Your task to perform on an android device: open app "Airtel Thanks" Image 0: 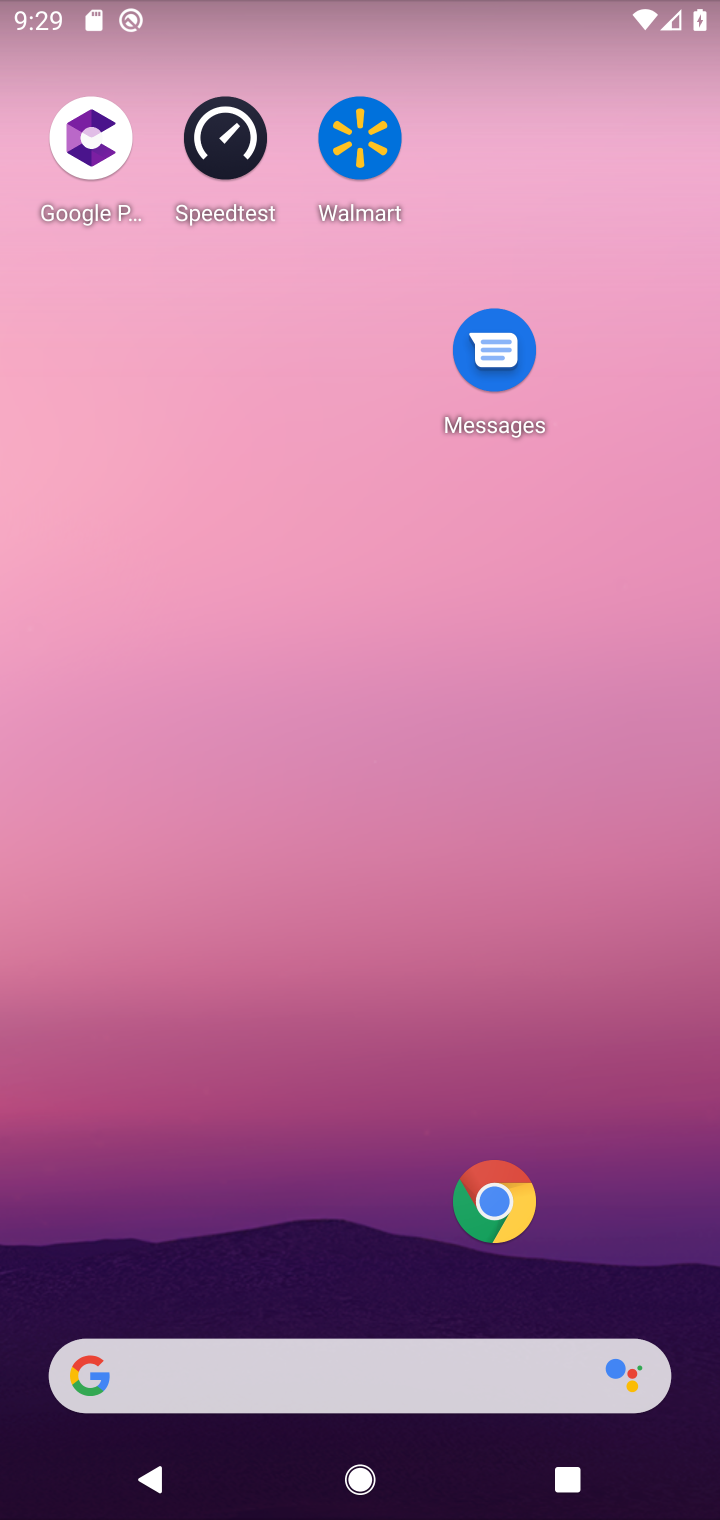
Step 0: drag from (403, 1233) to (440, 523)
Your task to perform on an android device: open app "Airtel Thanks" Image 1: 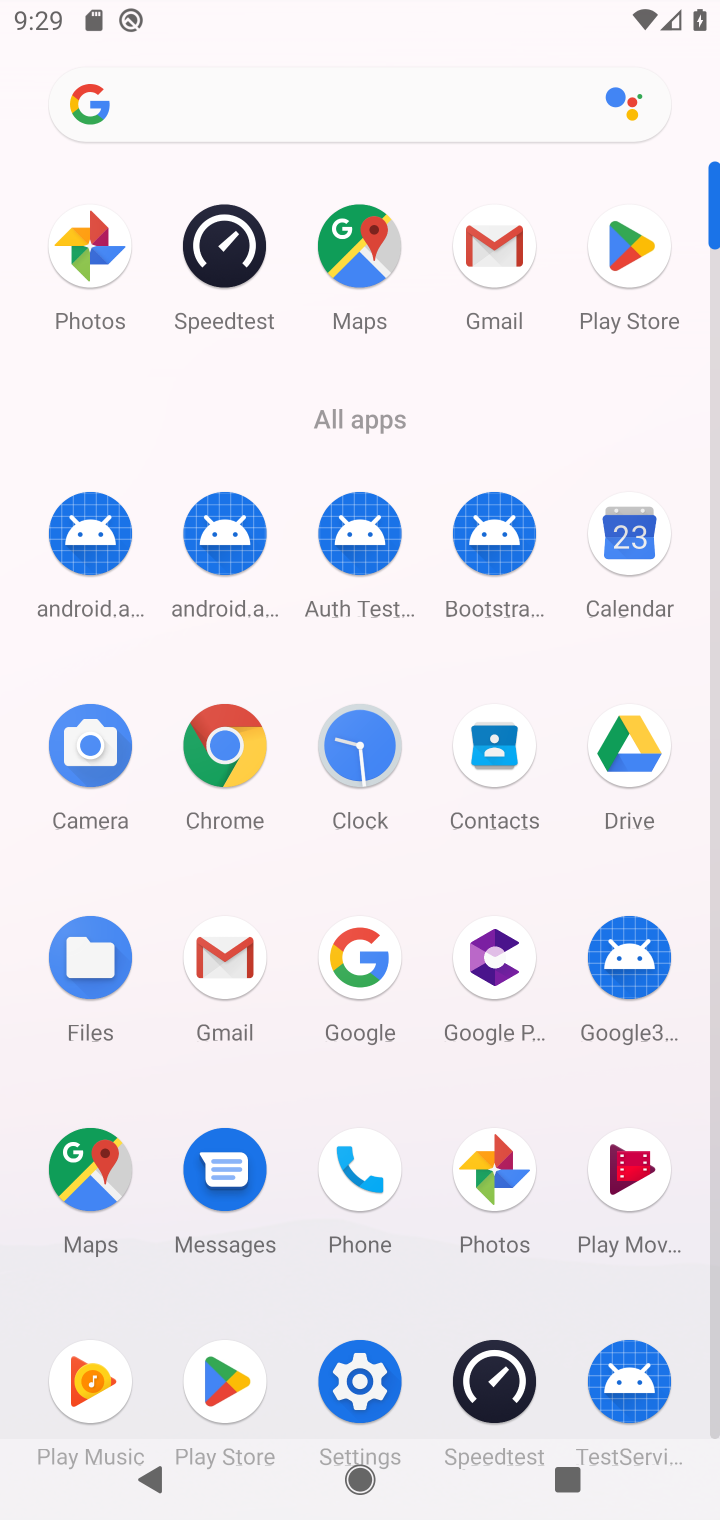
Step 1: click (639, 245)
Your task to perform on an android device: open app "Airtel Thanks" Image 2: 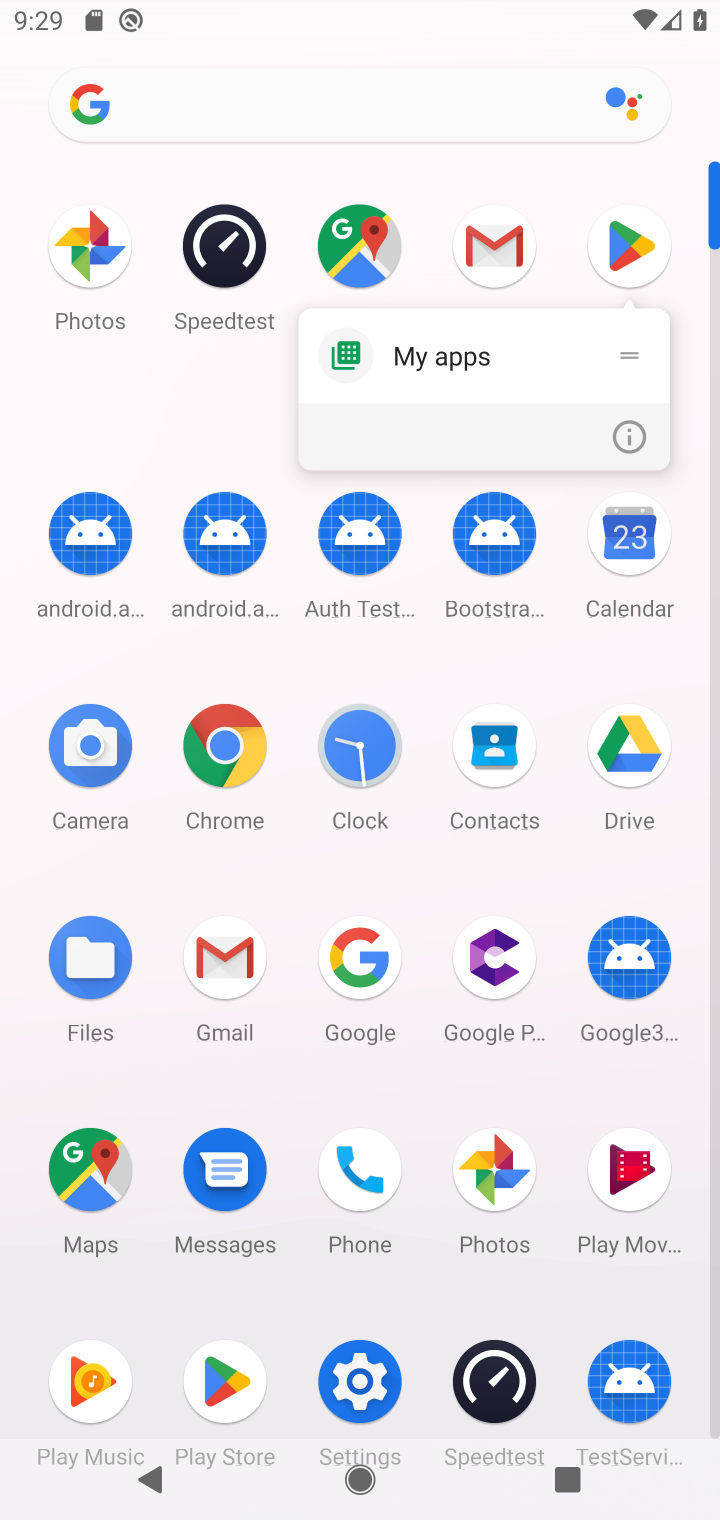
Step 2: click (633, 233)
Your task to perform on an android device: open app "Airtel Thanks" Image 3: 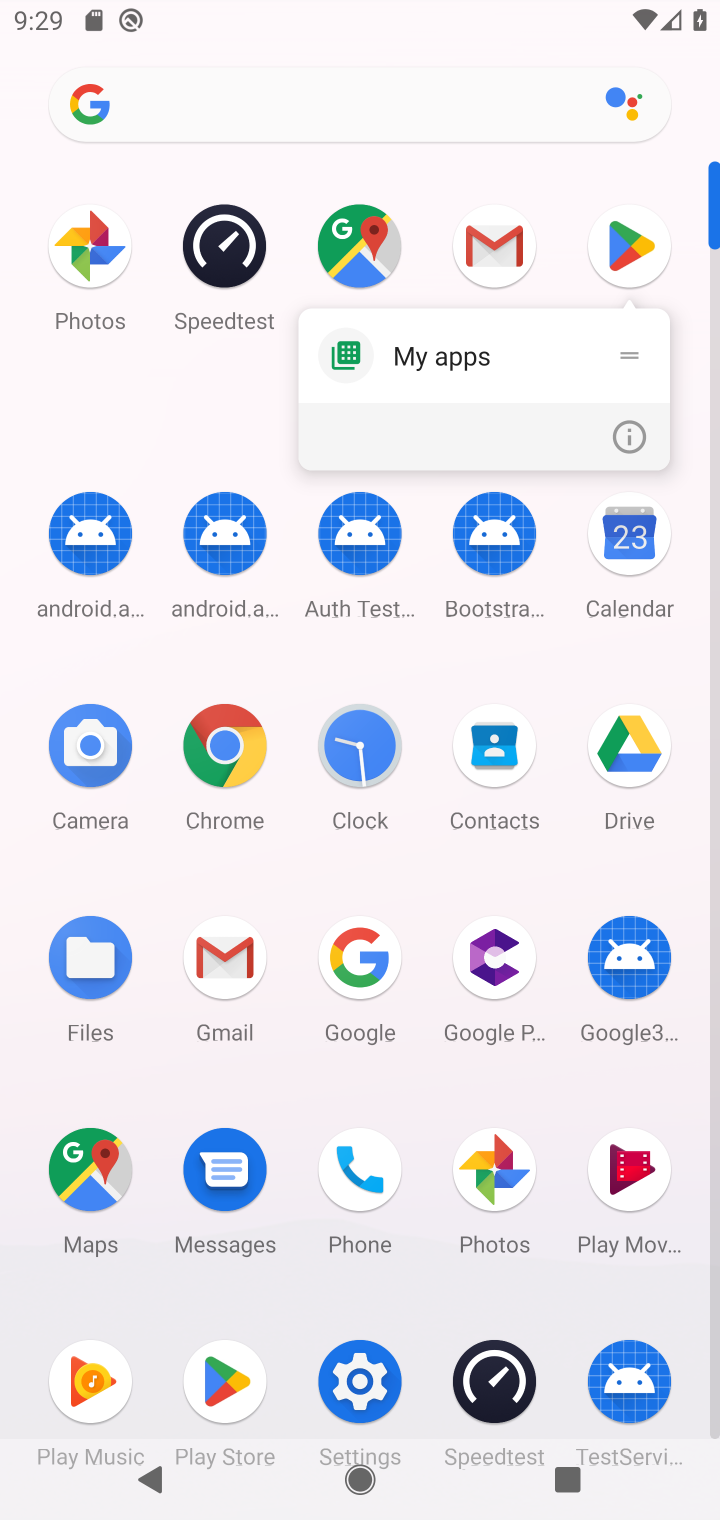
Step 3: click (633, 233)
Your task to perform on an android device: open app "Airtel Thanks" Image 4: 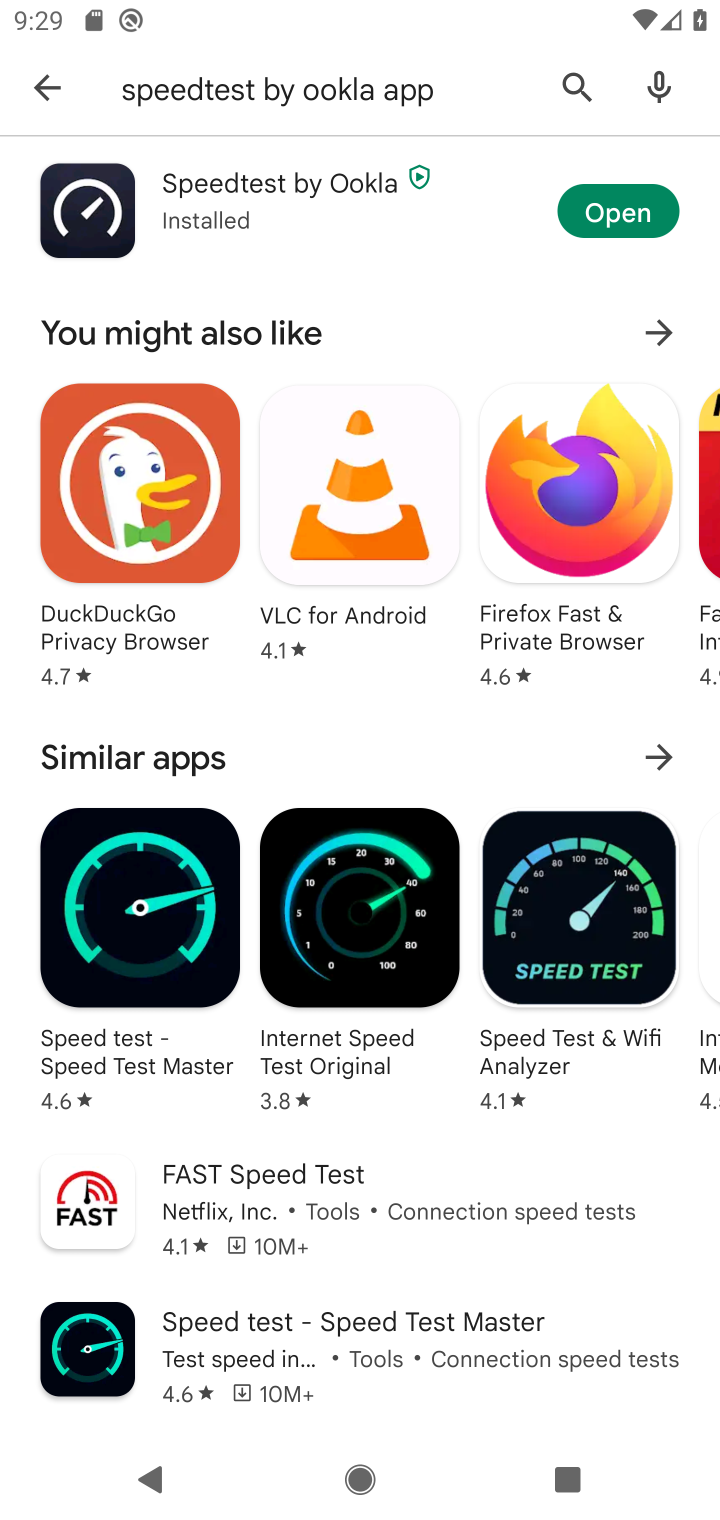
Step 4: click (38, 99)
Your task to perform on an android device: open app "Airtel Thanks" Image 5: 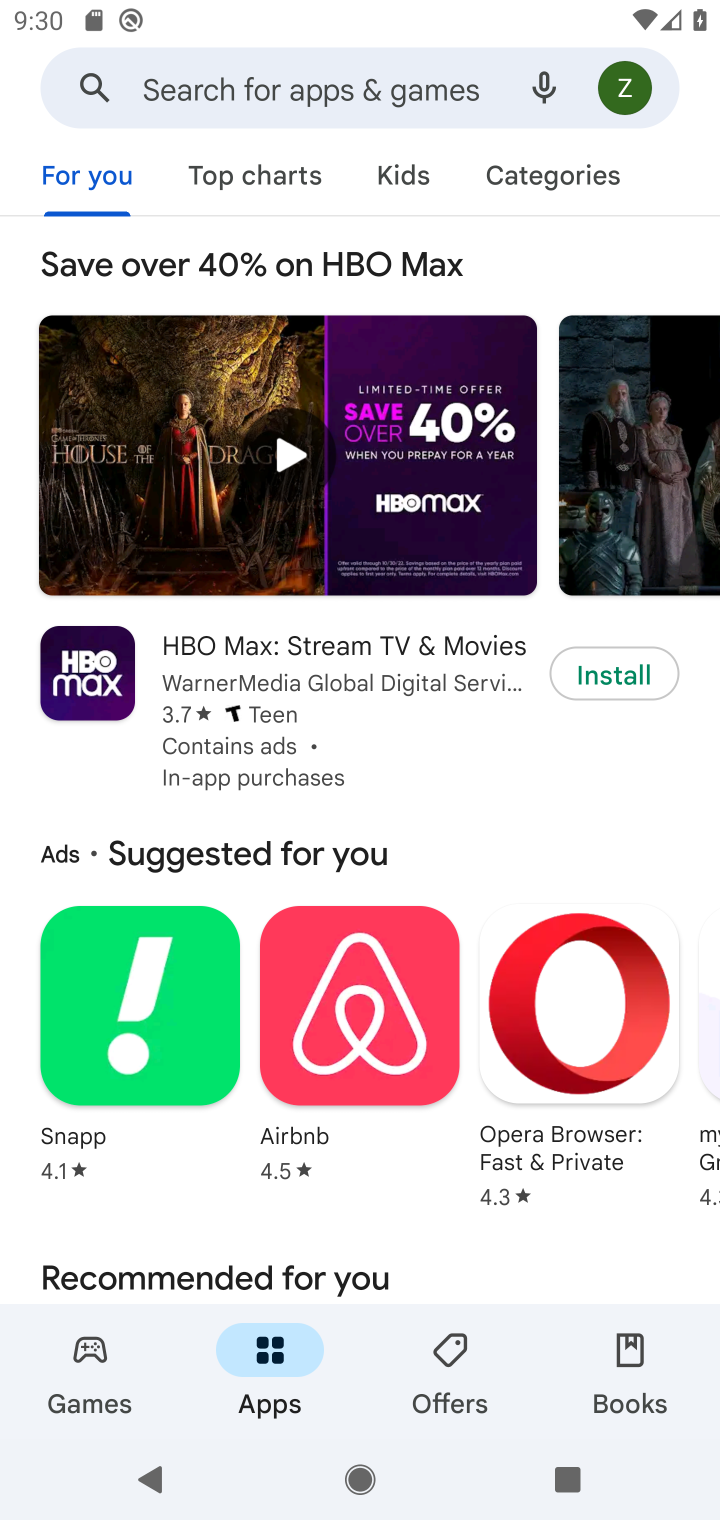
Step 5: click (406, 80)
Your task to perform on an android device: open app "Airtel Thanks" Image 6: 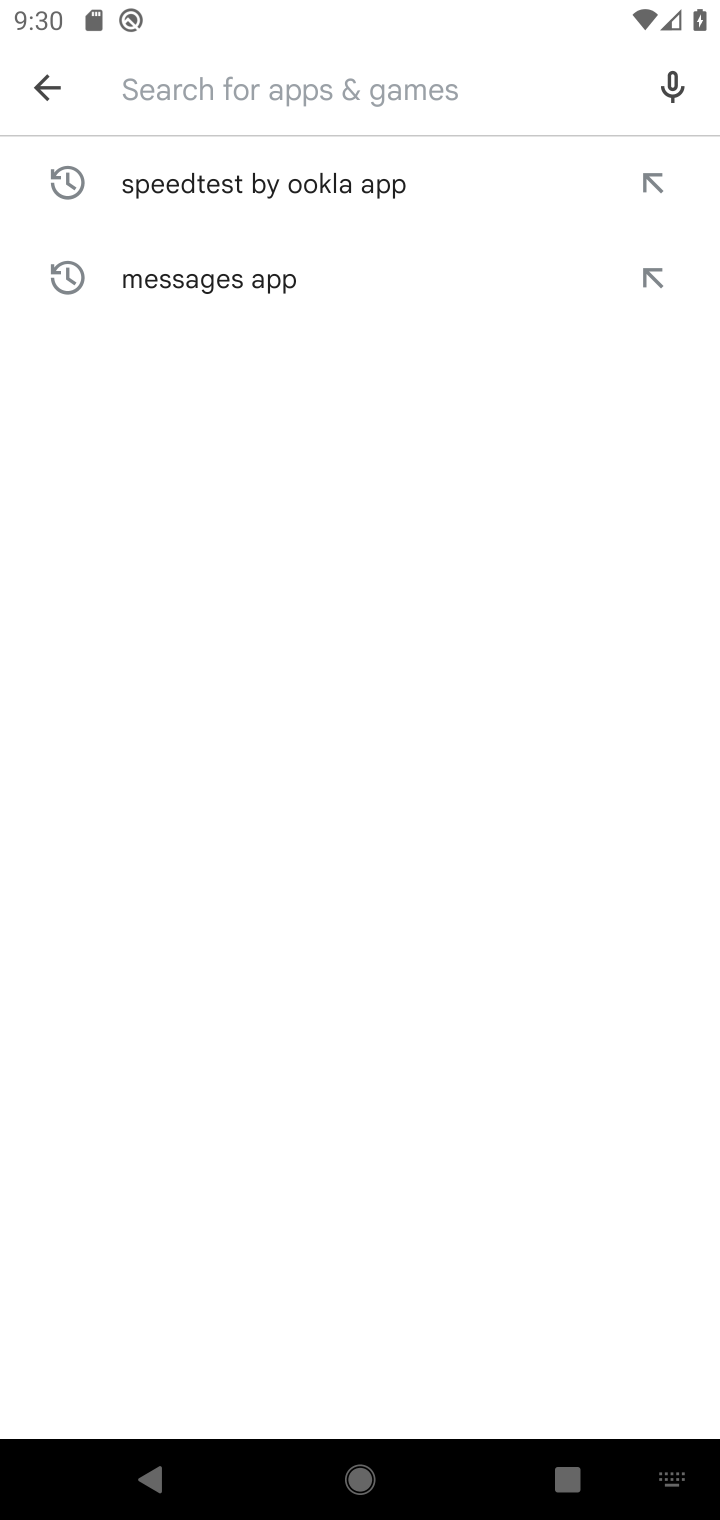
Step 6: type "Airtel Thanks "
Your task to perform on an android device: open app "Airtel Thanks" Image 7: 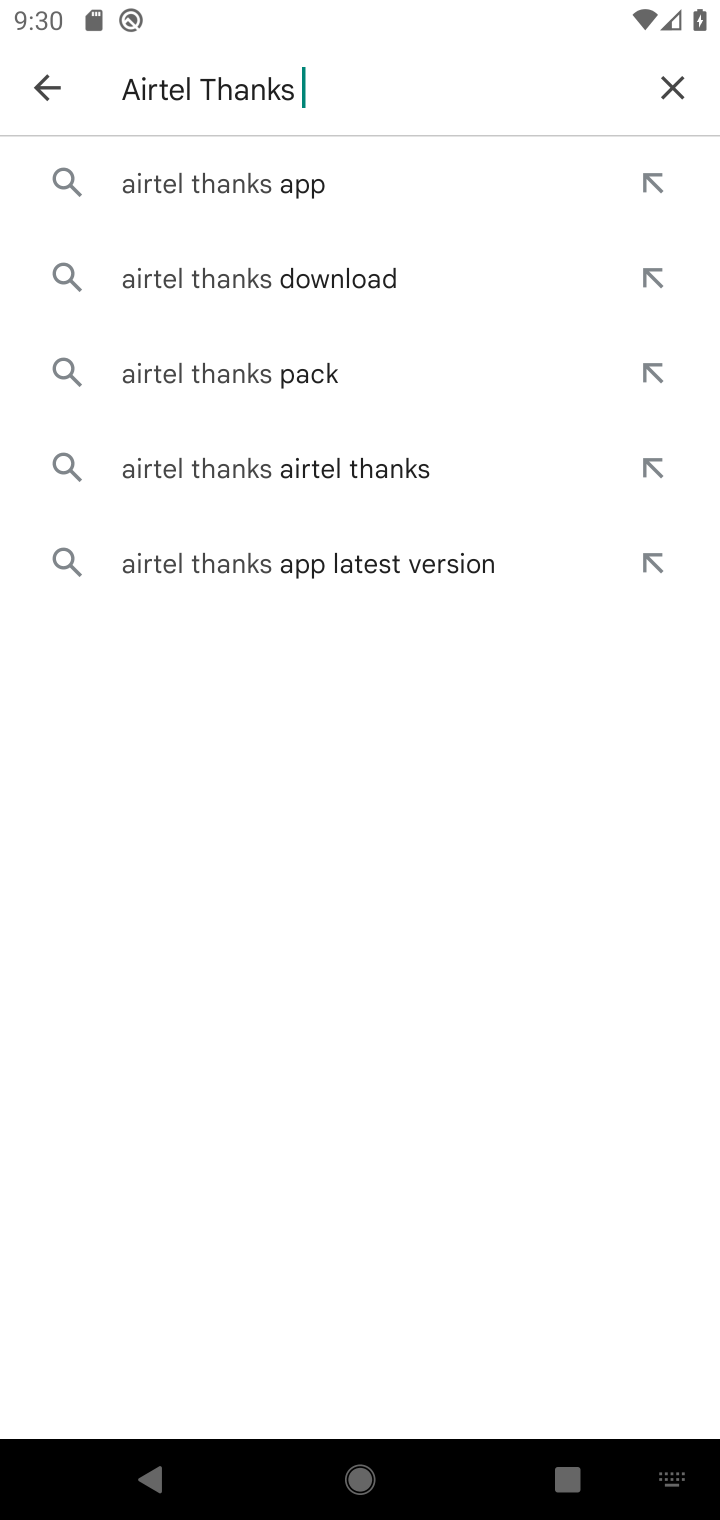
Step 7: click (253, 166)
Your task to perform on an android device: open app "Airtel Thanks" Image 8: 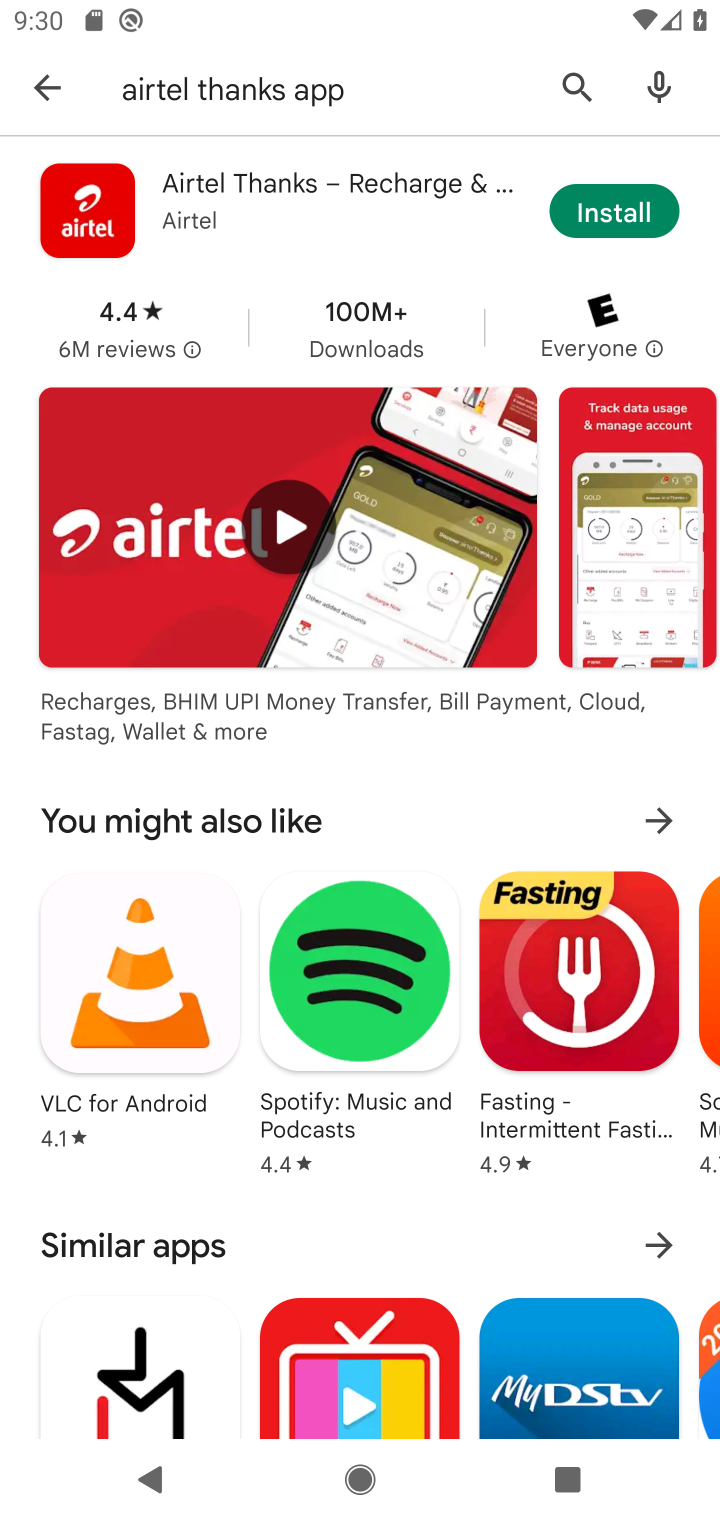
Step 8: click (577, 218)
Your task to perform on an android device: open app "Airtel Thanks" Image 9: 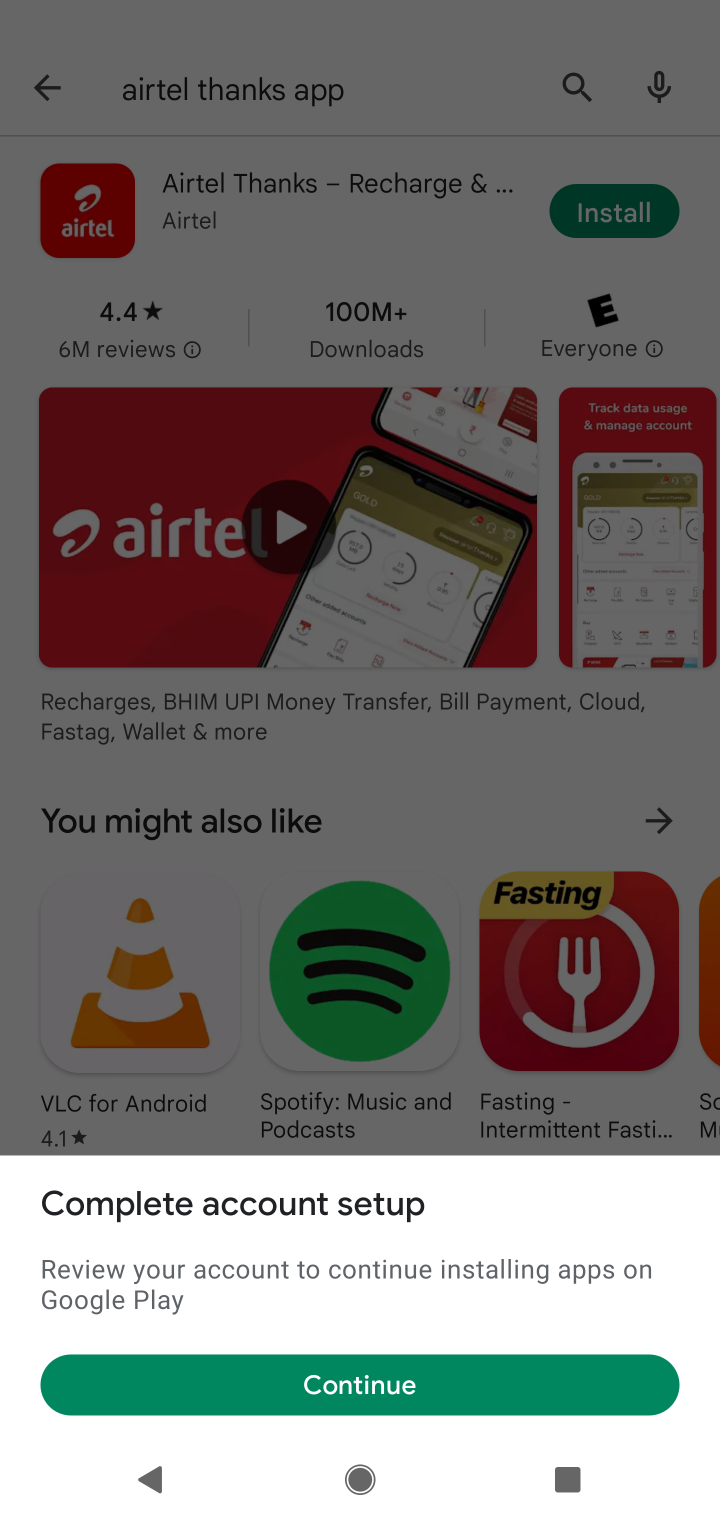
Step 9: task complete